Your task to perform on an android device: create a new album in the google photos Image 0: 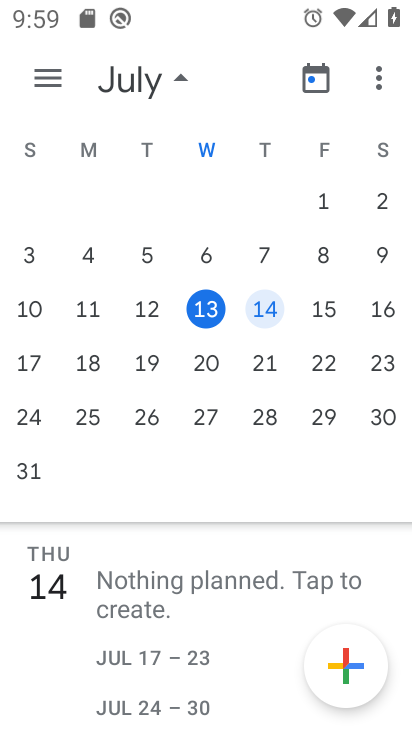
Step 0: press home button
Your task to perform on an android device: create a new album in the google photos Image 1: 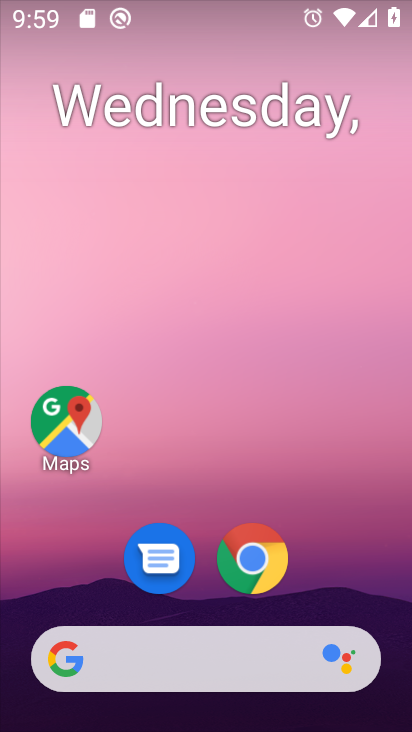
Step 1: drag from (373, 571) to (366, 154)
Your task to perform on an android device: create a new album in the google photos Image 2: 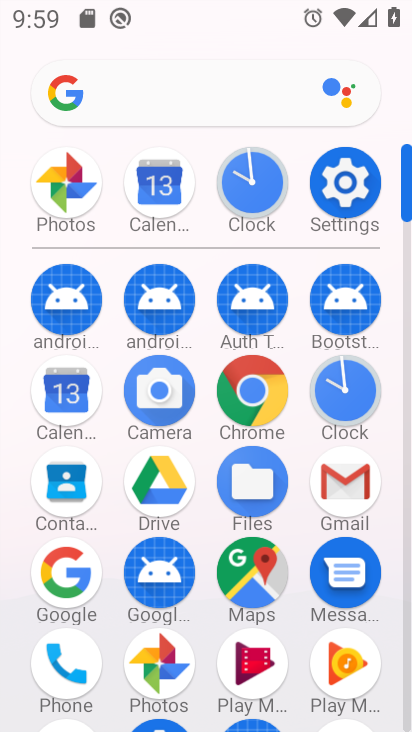
Step 2: click (163, 653)
Your task to perform on an android device: create a new album in the google photos Image 3: 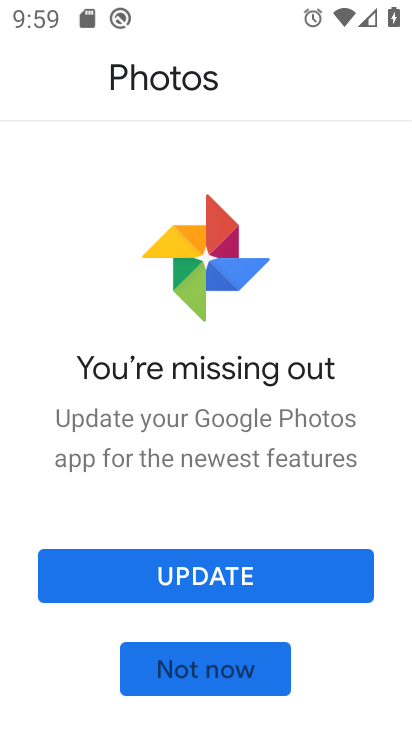
Step 3: click (234, 581)
Your task to perform on an android device: create a new album in the google photos Image 4: 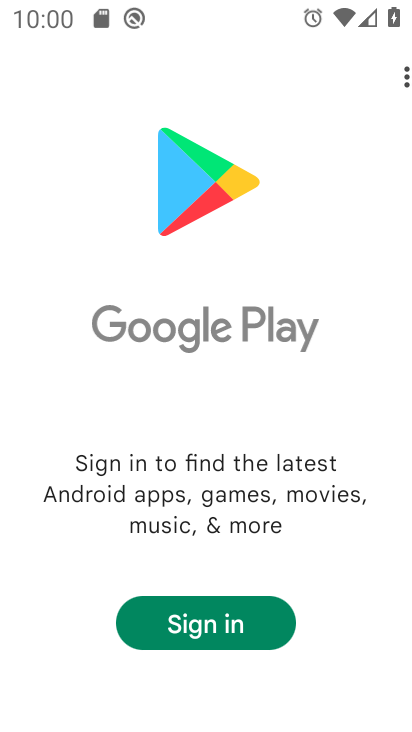
Step 4: task complete